Your task to perform on an android device: Go to notification settings Image 0: 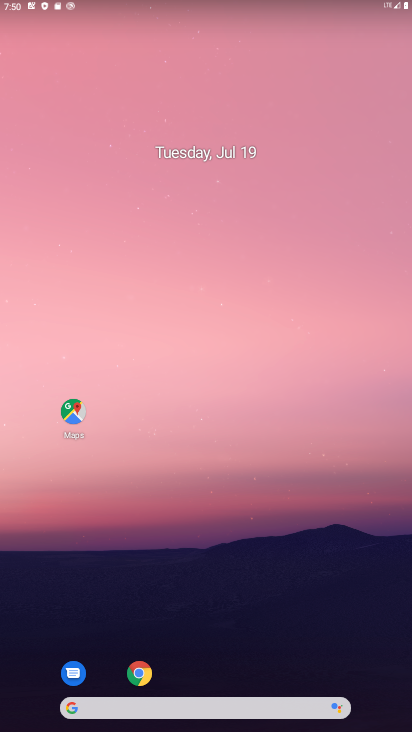
Step 0: drag from (381, 689) to (213, 60)
Your task to perform on an android device: Go to notification settings Image 1: 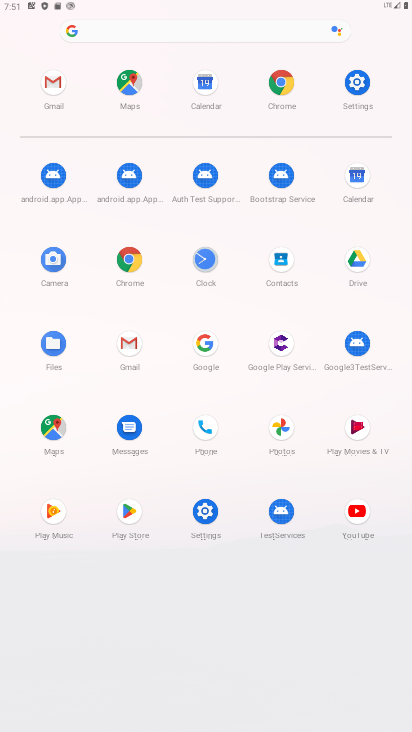
Step 1: click (206, 512)
Your task to perform on an android device: Go to notification settings Image 2: 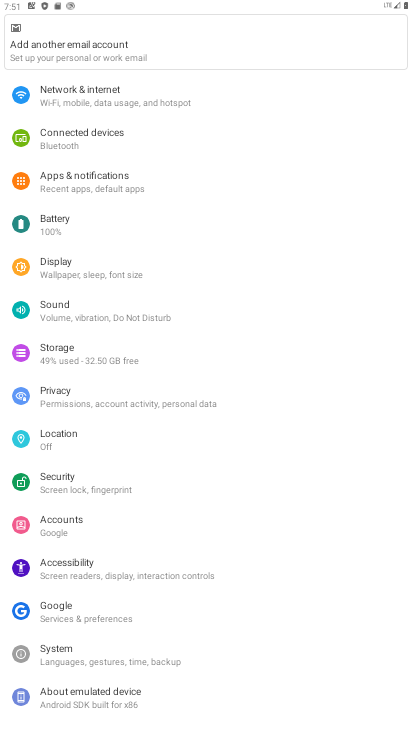
Step 2: click (141, 178)
Your task to perform on an android device: Go to notification settings Image 3: 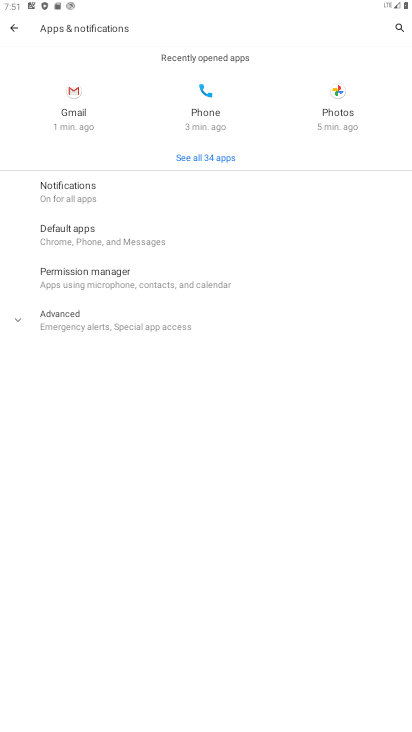
Step 3: click (86, 196)
Your task to perform on an android device: Go to notification settings Image 4: 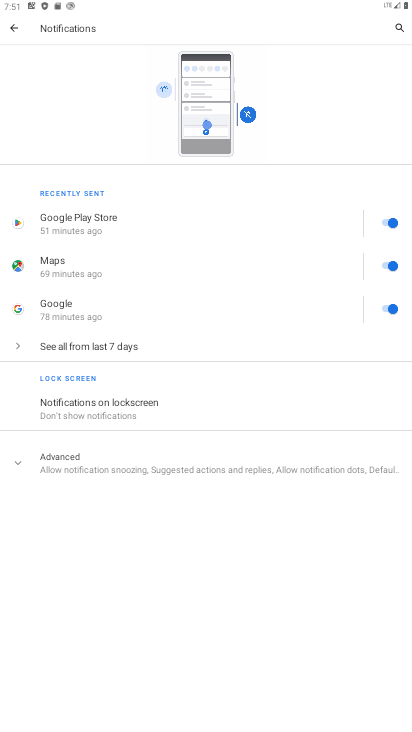
Step 4: task complete